Your task to perform on an android device: Open Maps and search for coffee Image 0: 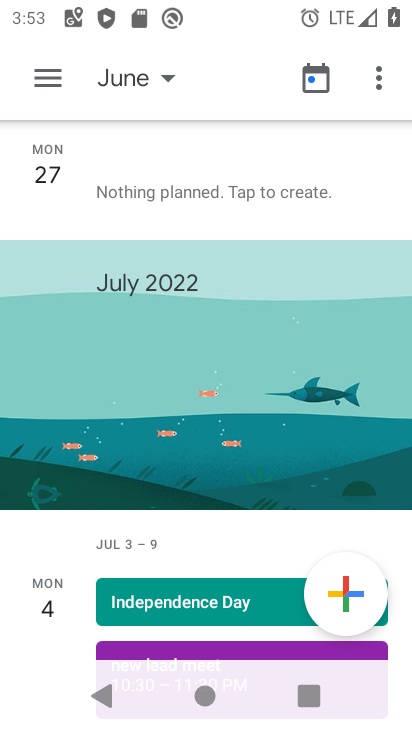
Step 0: press home button
Your task to perform on an android device: Open Maps and search for coffee Image 1: 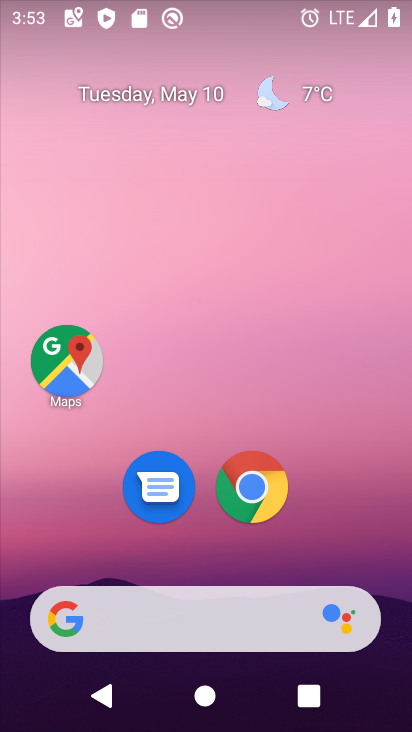
Step 1: drag from (342, 525) to (266, 90)
Your task to perform on an android device: Open Maps and search for coffee Image 2: 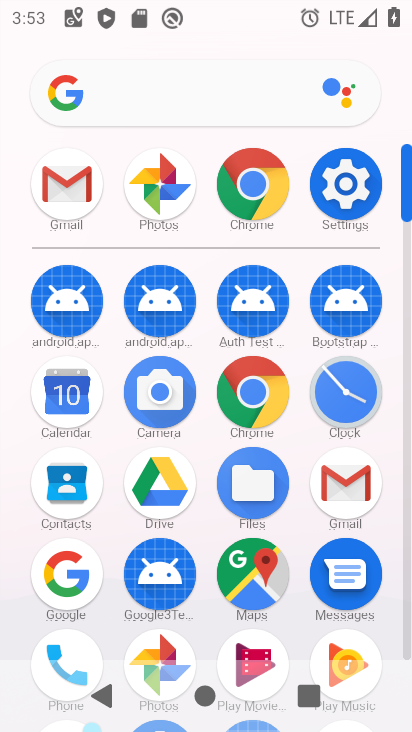
Step 2: click (264, 569)
Your task to perform on an android device: Open Maps and search for coffee Image 3: 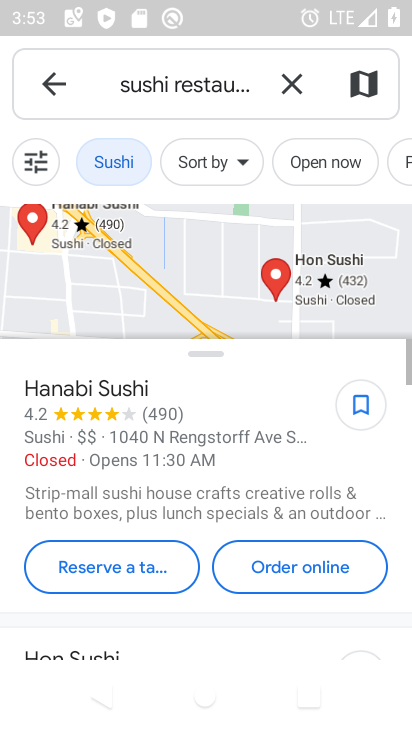
Step 3: click (237, 77)
Your task to perform on an android device: Open Maps and search for coffee Image 4: 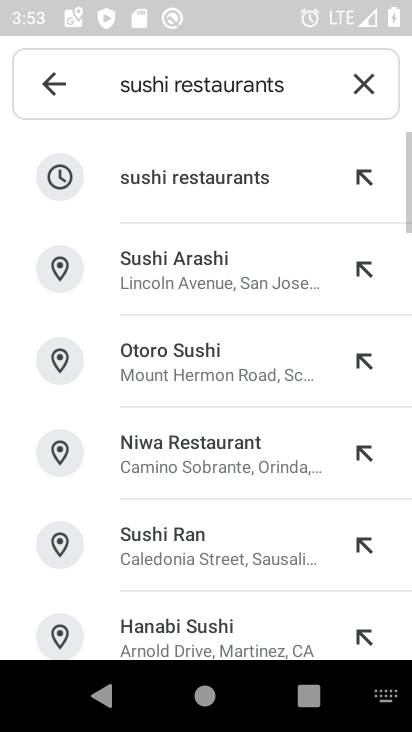
Step 4: click (359, 82)
Your task to perform on an android device: Open Maps and search for coffee Image 5: 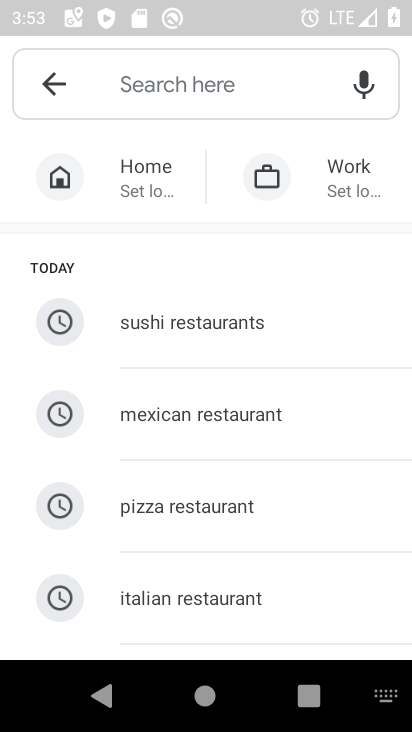
Step 5: type "coffee"
Your task to perform on an android device: Open Maps and search for coffee Image 6: 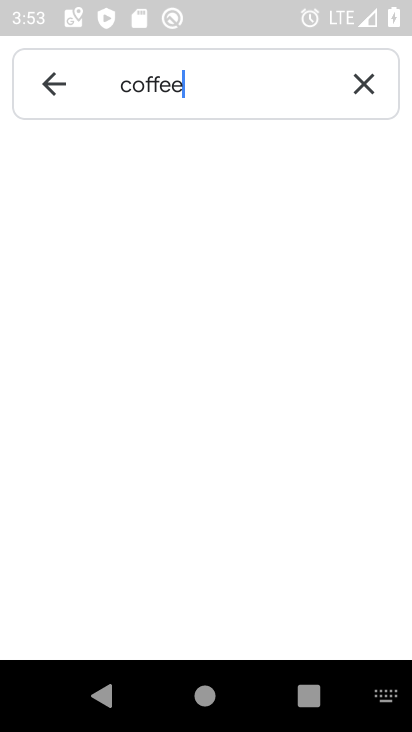
Step 6: type ""
Your task to perform on an android device: Open Maps and search for coffee Image 7: 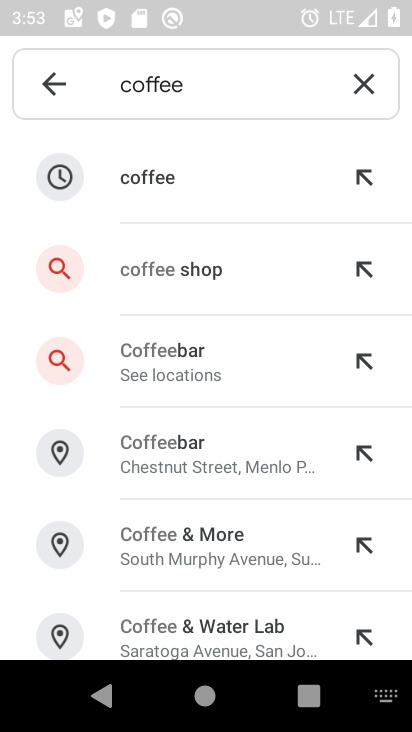
Step 7: click (130, 173)
Your task to perform on an android device: Open Maps and search for coffee Image 8: 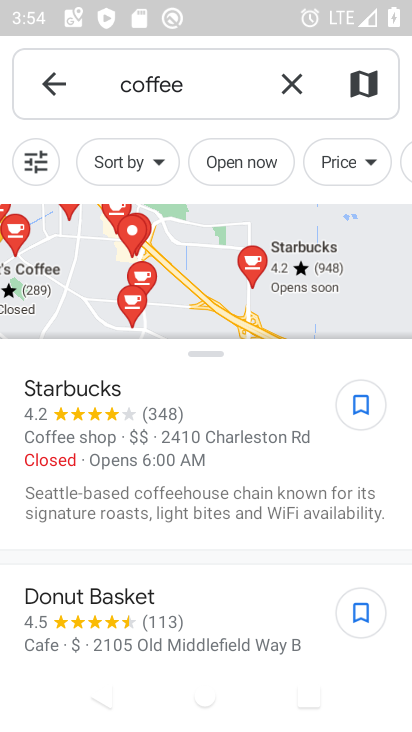
Step 8: task complete